Your task to perform on an android device: change notification settings in the gmail app Image 0: 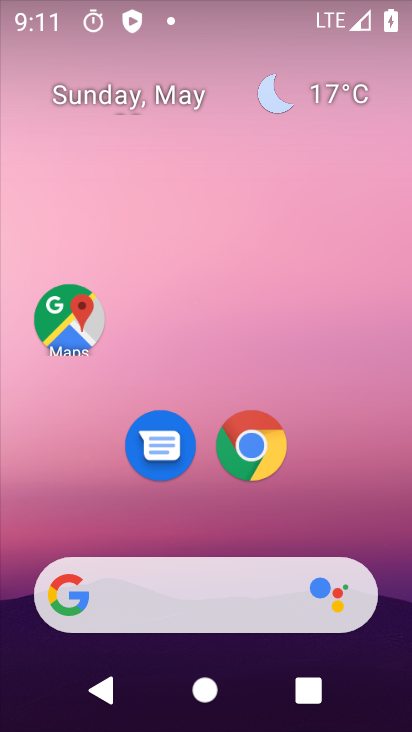
Step 0: drag from (172, 525) to (308, 222)
Your task to perform on an android device: change notification settings in the gmail app Image 1: 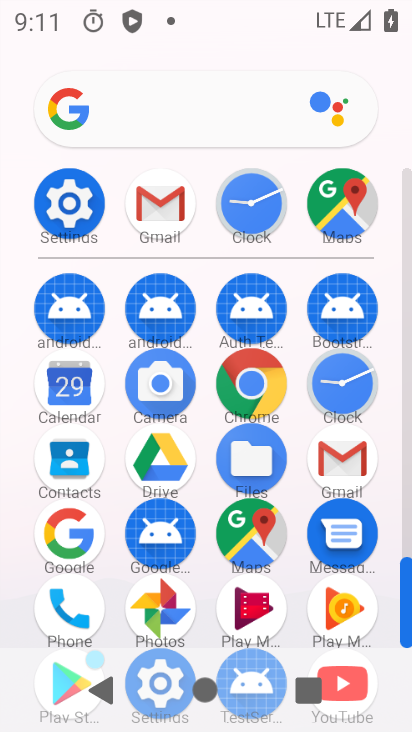
Step 1: click (337, 457)
Your task to perform on an android device: change notification settings in the gmail app Image 2: 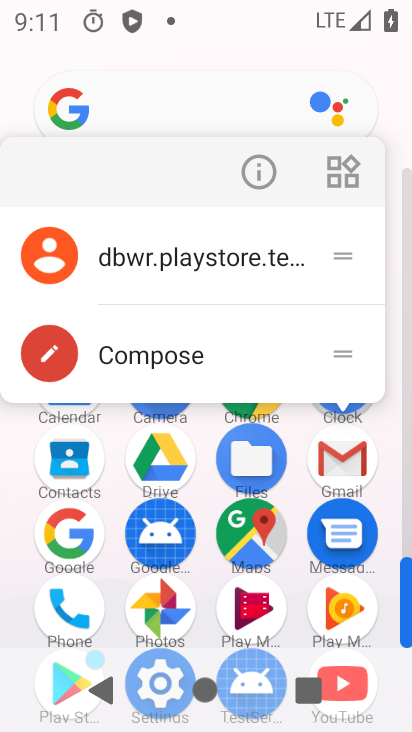
Step 2: click (261, 163)
Your task to perform on an android device: change notification settings in the gmail app Image 3: 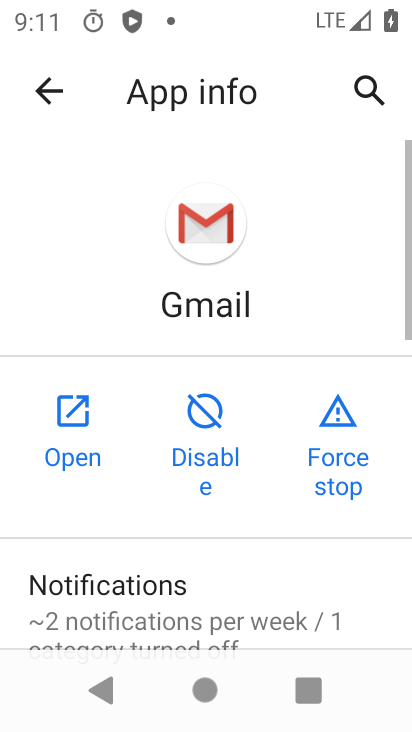
Step 3: click (84, 416)
Your task to perform on an android device: change notification settings in the gmail app Image 4: 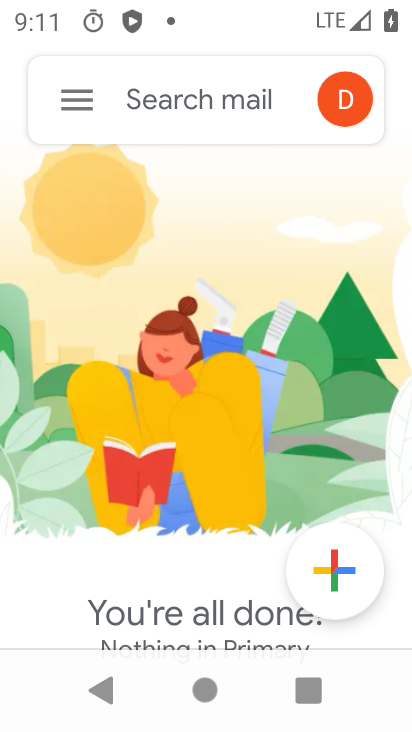
Step 4: click (66, 85)
Your task to perform on an android device: change notification settings in the gmail app Image 5: 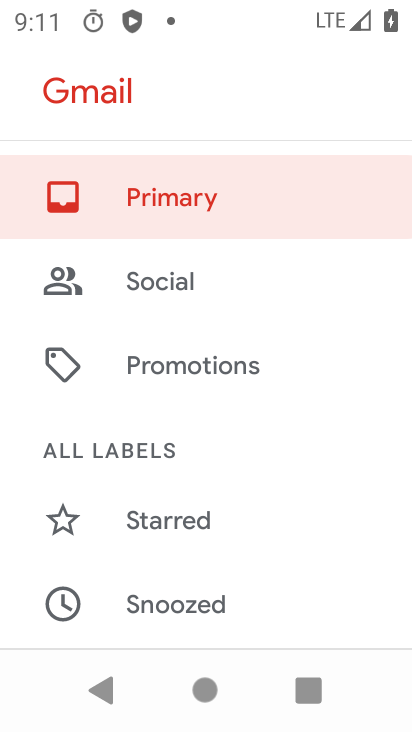
Step 5: drag from (203, 510) to (238, 9)
Your task to perform on an android device: change notification settings in the gmail app Image 6: 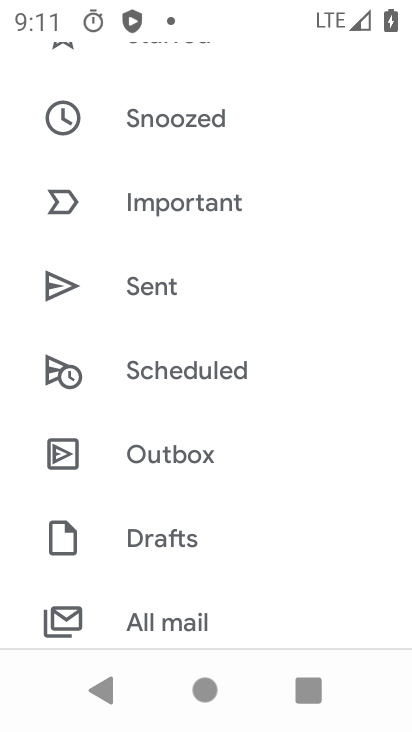
Step 6: drag from (221, 481) to (271, 5)
Your task to perform on an android device: change notification settings in the gmail app Image 7: 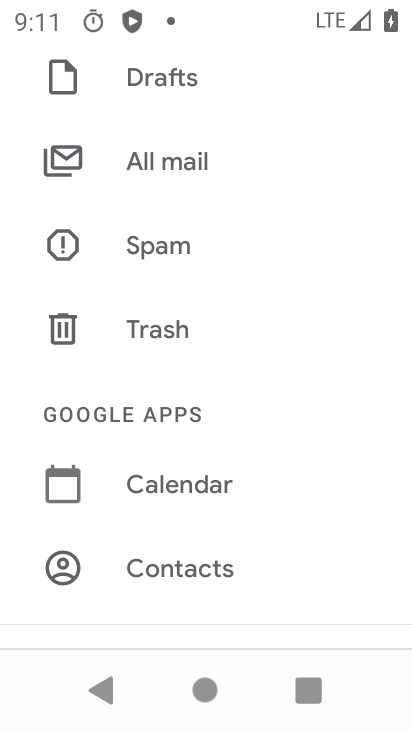
Step 7: drag from (213, 501) to (239, 5)
Your task to perform on an android device: change notification settings in the gmail app Image 8: 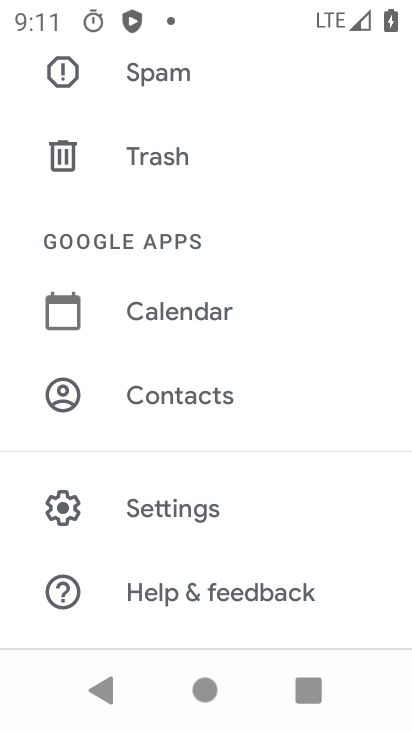
Step 8: click (175, 504)
Your task to perform on an android device: change notification settings in the gmail app Image 9: 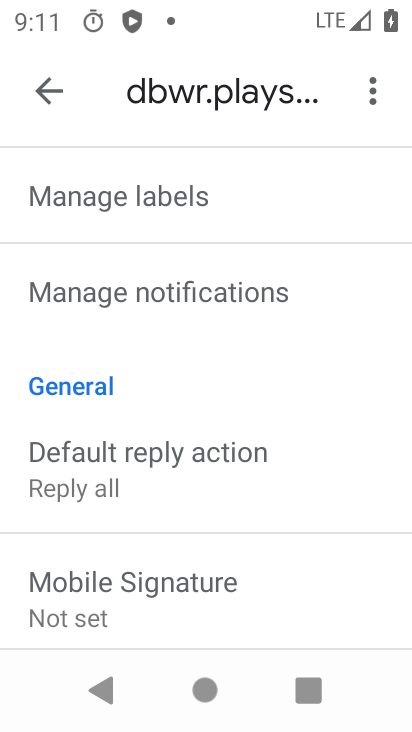
Step 9: drag from (198, 574) to (241, 123)
Your task to perform on an android device: change notification settings in the gmail app Image 10: 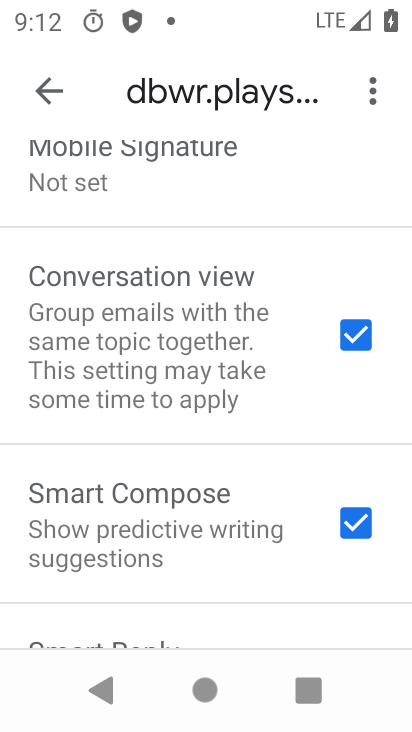
Step 10: drag from (256, 176) to (220, 729)
Your task to perform on an android device: change notification settings in the gmail app Image 11: 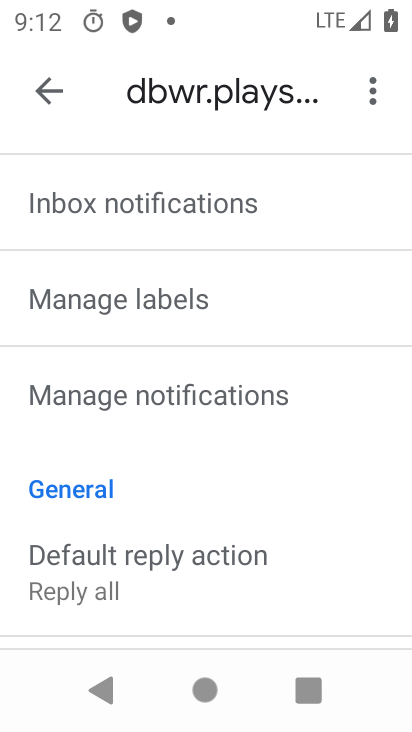
Step 11: click (222, 381)
Your task to perform on an android device: change notification settings in the gmail app Image 12: 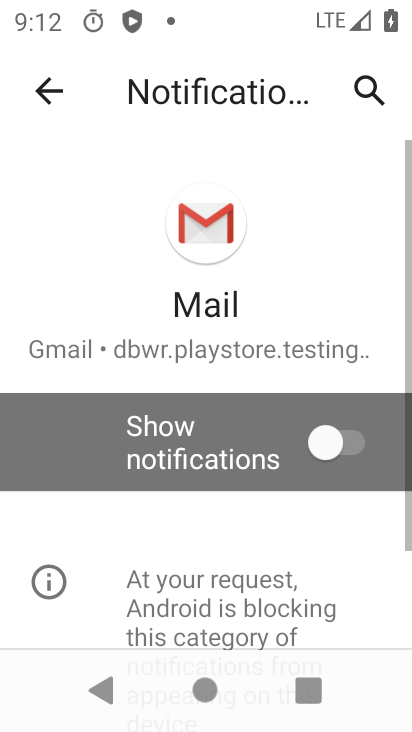
Step 12: drag from (230, 492) to (261, 173)
Your task to perform on an android device: change notification settings in the gmail app Image 13: 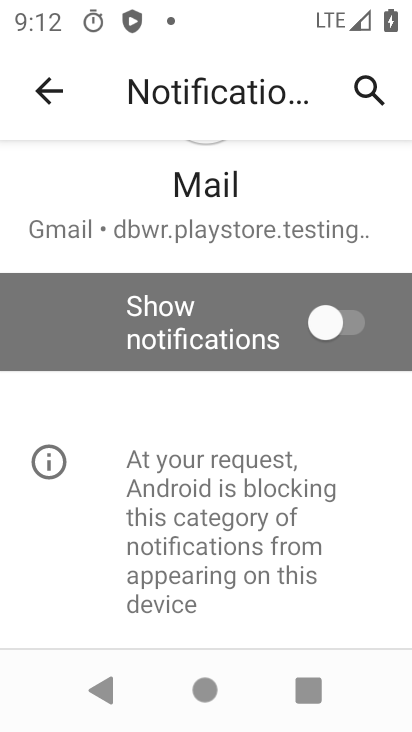
Step 13: drag from (281, 517) to (303, 207)
Your task to perform on an android device: change notification settings in the gmail app Image 14: 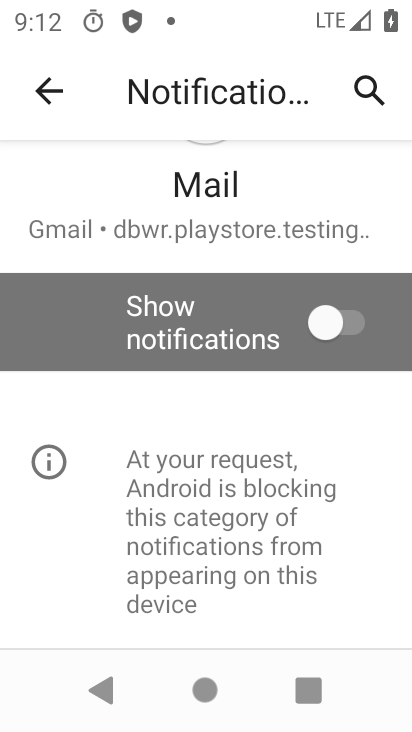
Step 14: drag from (296, 283) to (312, 643)
Your task to perform on an android device: change notification settings in the gmail app Image 15: 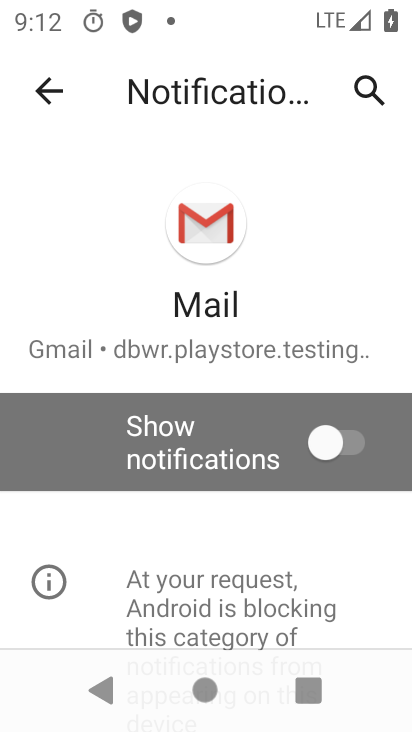
Step 15: drag from (239, 575) to (244, 325)
Your task to perform on an android device: change notification settings in the gmail app Image 16: 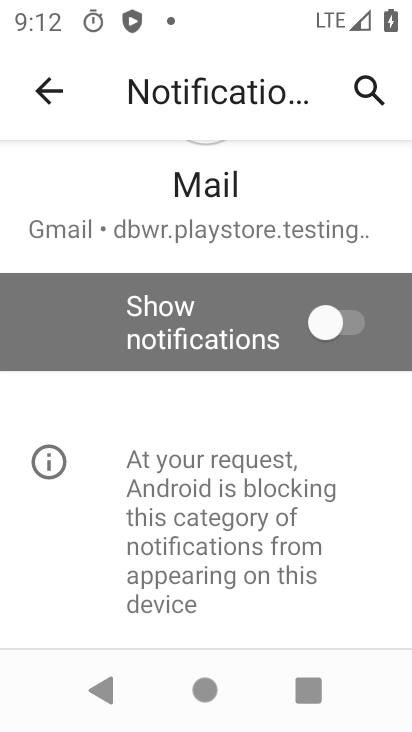
Step 16: click (328, 326)
Your task to perform on an android device: change notification settings in the gmail app Image 17: 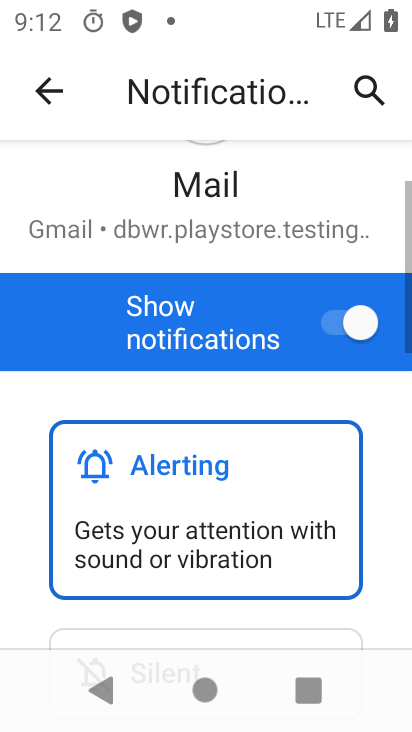
Step 17: task complete